Your task to perform on an android device: change the clock style Image 0: 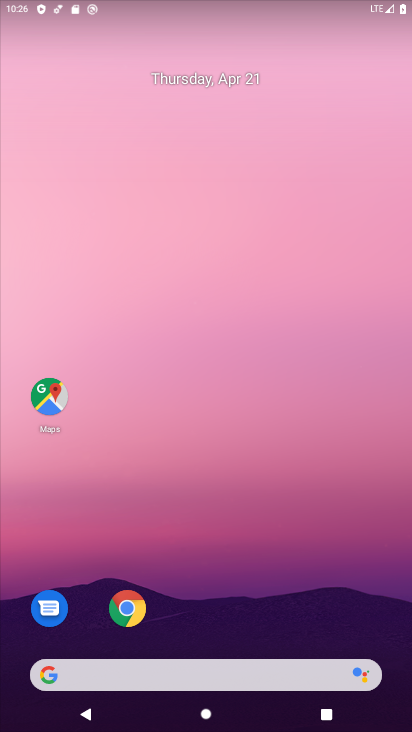
Step 0: drag from (200, 591) to (210, 270)
Your task to perform on an android device: change the clock style Image 1: 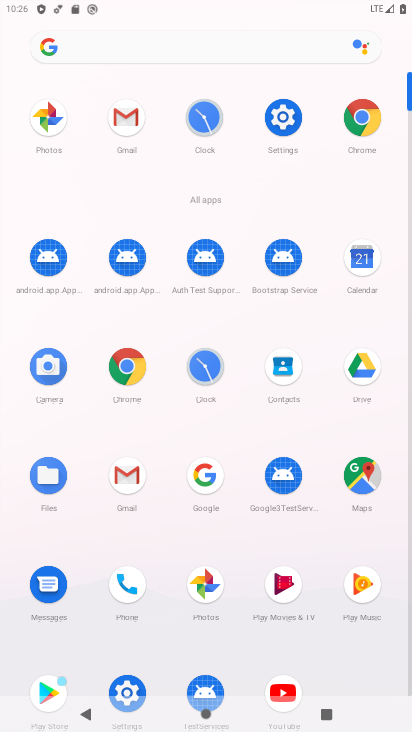
Step 1: click (206, 116)
Your task to perform on an android device: change the clock style Image 2: 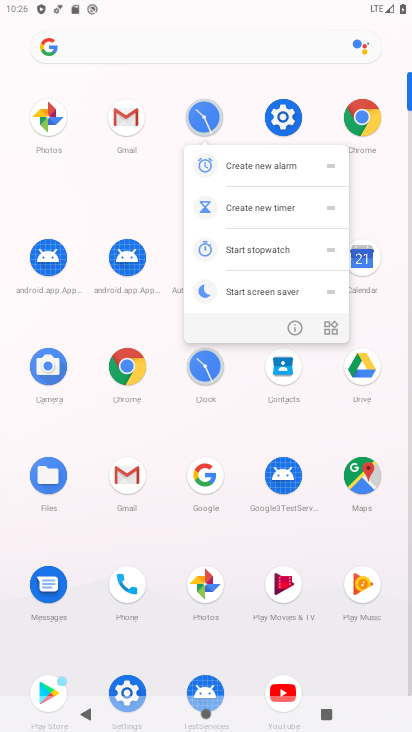
Step 2: click (206, 116)
Your task to perform on an android device: change the clock style Image 3: 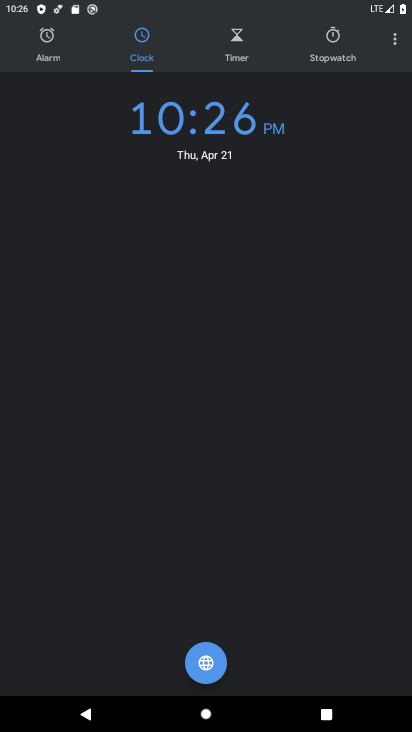
Step 3: click (398, 44)
Your task to perform on an android device: change the clock style Image 4: 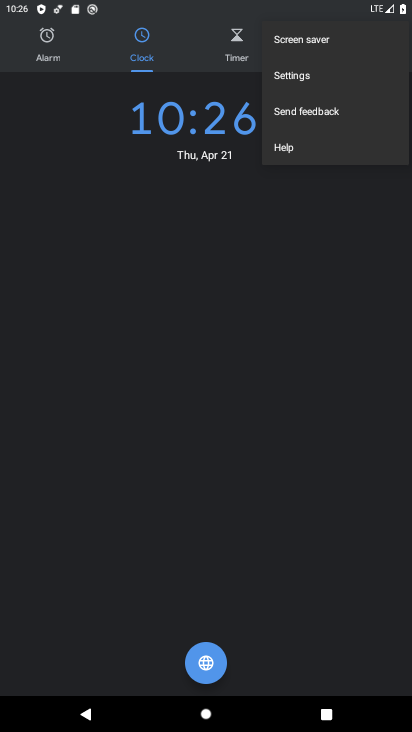
Step 4: click (313, 81)
Your task to perform on an android device: change the clock style Image 5: 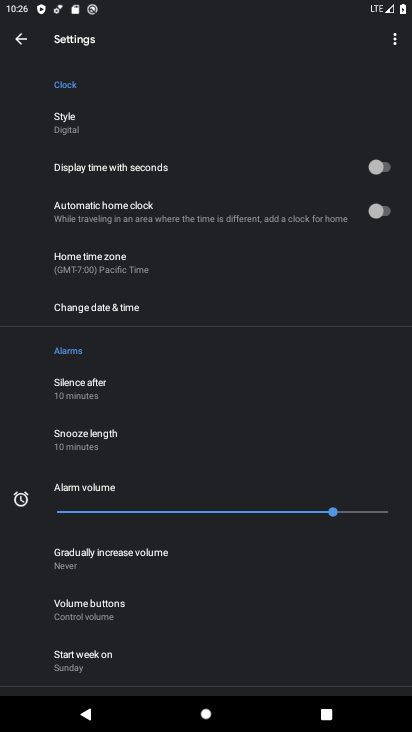
Step 5: click (68, 131)
Your task to perform on an android device: change the clock style Image 6: 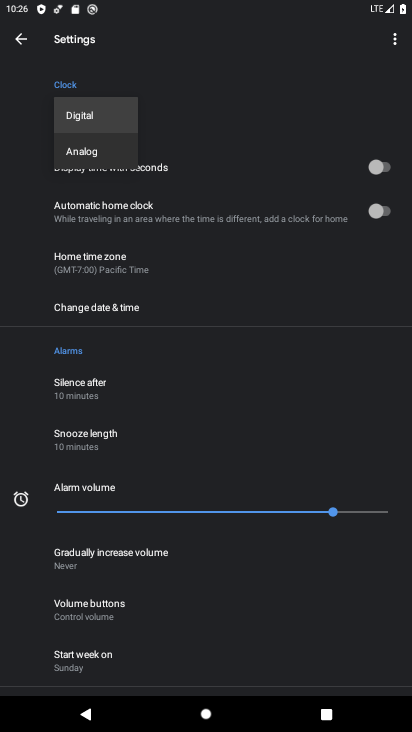
Step 6: click (74, 149)
Your task to perform on an android device: change the clock style Image 7: 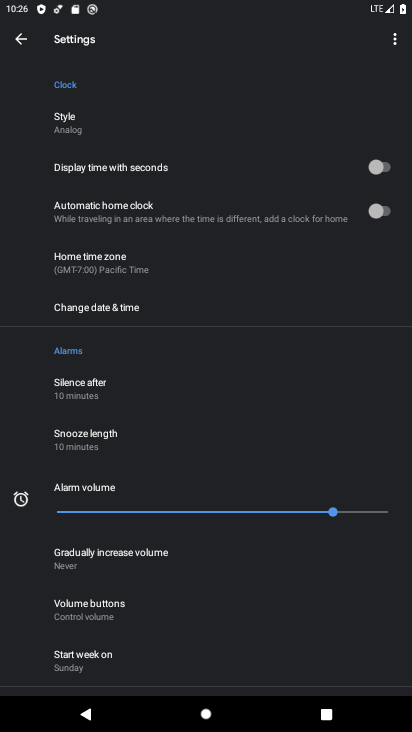
Step 7: task complete